Your task to perform on an android device: Open settings Image 0: 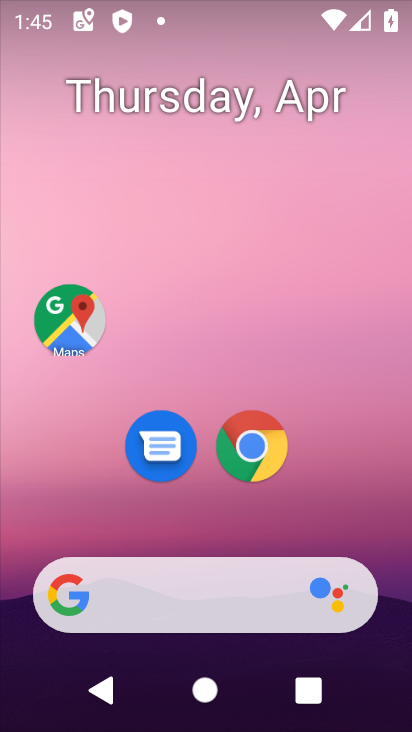
Step 0: drag from (358, 386) to (262, 139)
Your task to perform on an android device: Open settings Image 1: 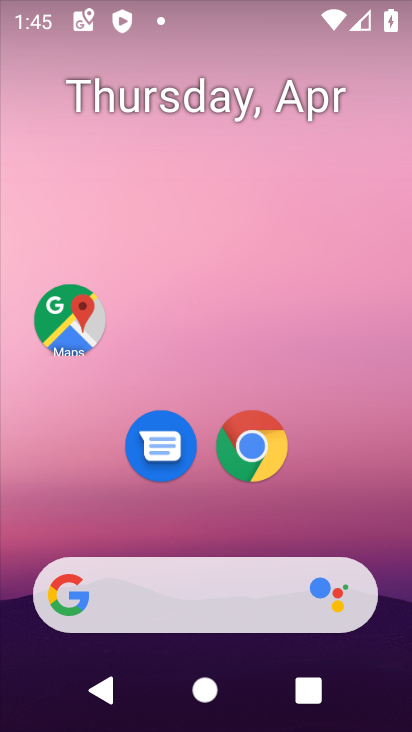
Step 1: drag from (277, 506) to (293, 153)
Your task to perform on an android device: Open settings Image 2: 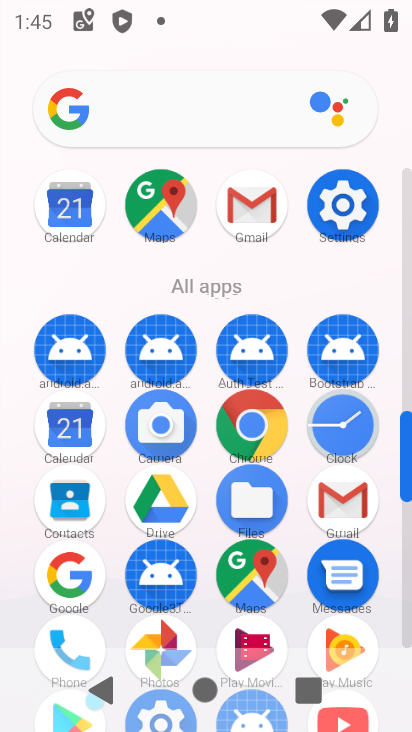
Step 2: click (341, 226)
Your task to perform on an android device: Open settings Image 3: 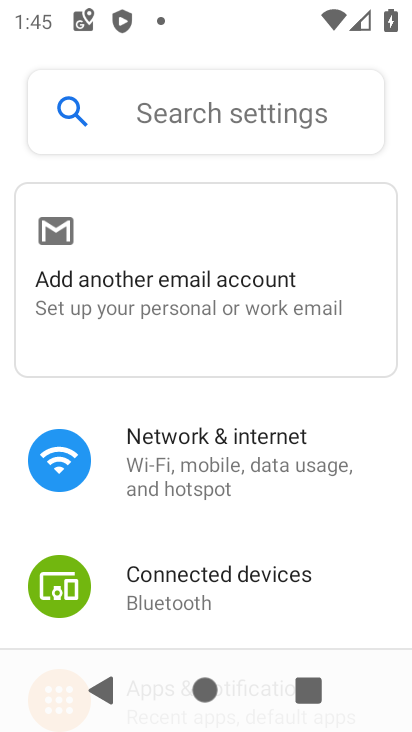
Step 3: task complete